Your task to perform on an android device: Go to sound settings Image 0: 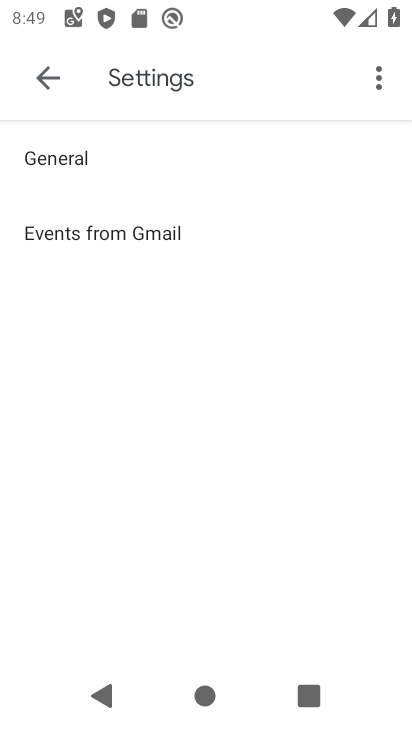
Step 0: press home button
Your task to perform on an android device: Go to sound settings Image 1: 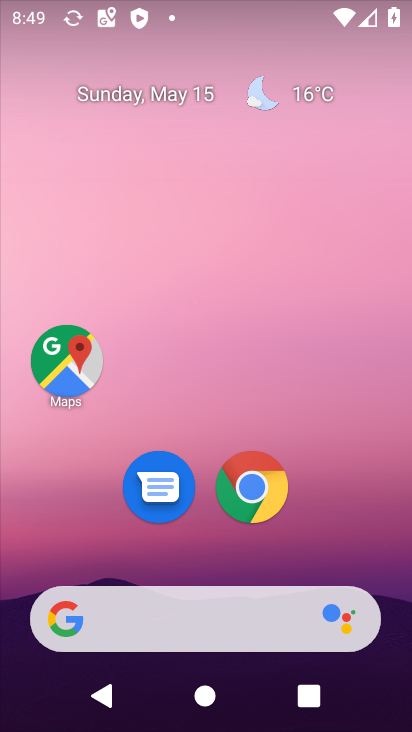
Step 1: drag from (400, 632) to (323, 59)
Your task to perform on an android device: Go to sound settings Image 2: 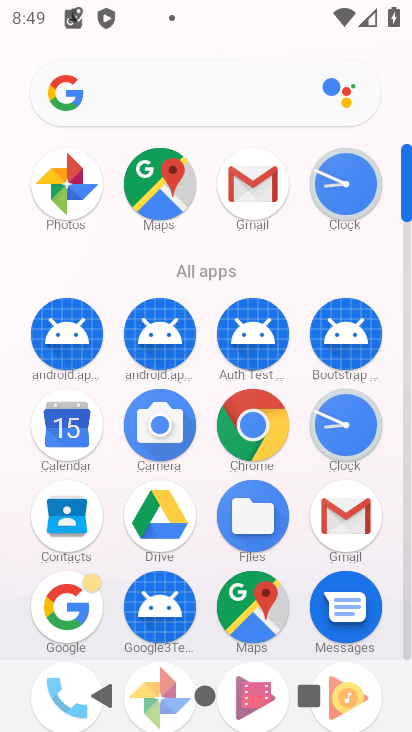
Step 2: click (408, 643)
Your task to perform on an android device: Go to sound settings Image 3: 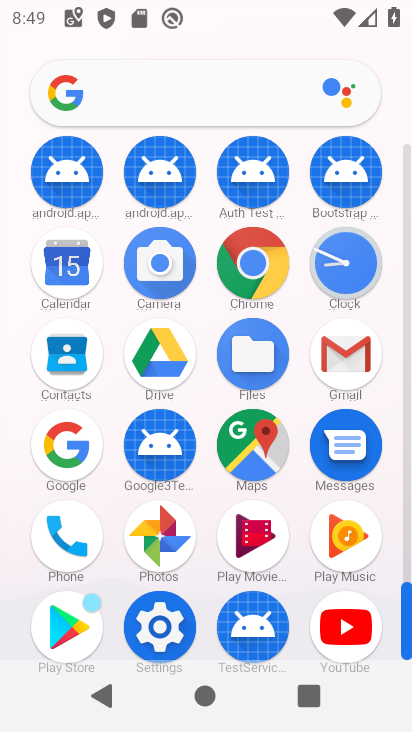
Step 3: click (161, 626)
Your task to perform on an android device: Go to sound settings Image 4: 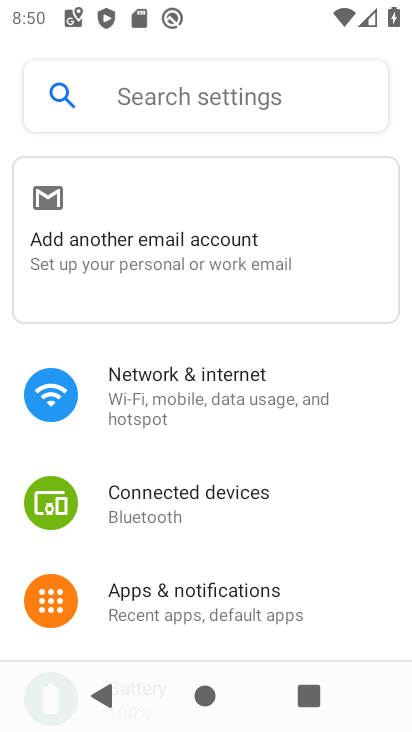
Step 4: drag from (343, 604) to (326, 120)
Your task to perform on an android device: Go to sound settings Image 5: 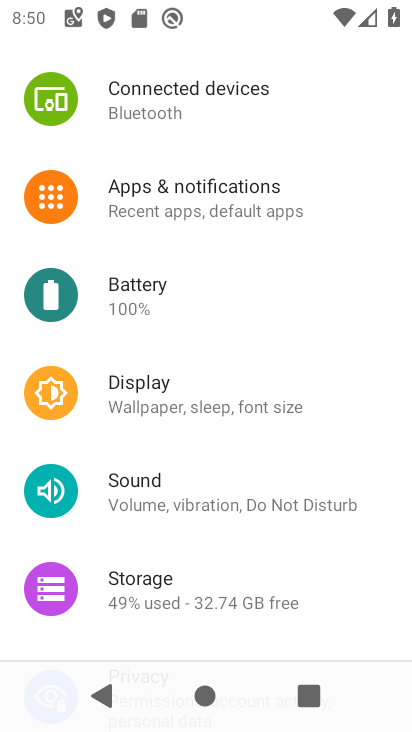
Step 5: click (140, 489)
Your task to perform on an android device: Go to sound settings Image 6: 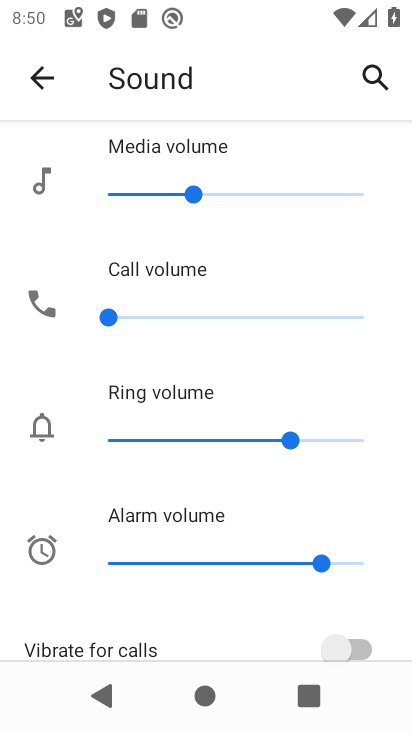
Step 6: drag from (376, 612) to (360, 265)
Your task to perform on an android device: Go to sound settings Image 7: 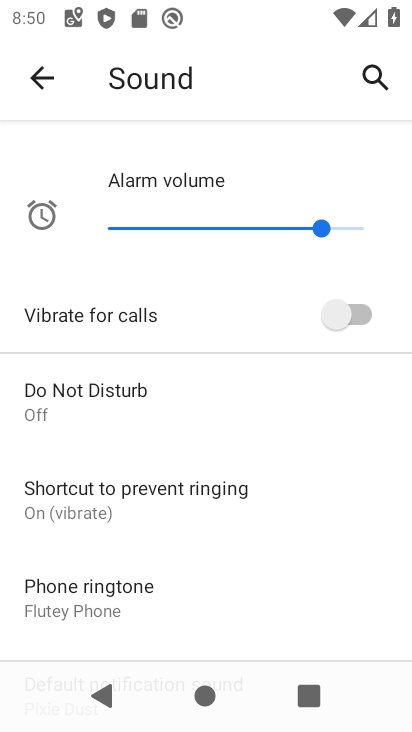
Step 7: drag from (324, 599) to (384, 211)
Your task to perform on an android device: Go to sound settings Image 8: 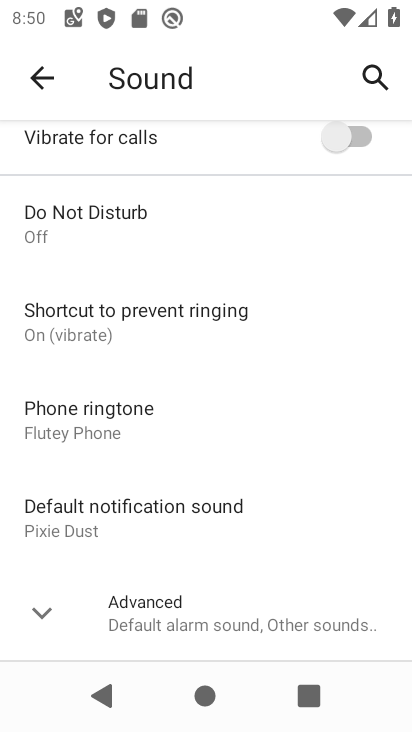
Step 8: click (38, 608)
Your task to perform on an android device: Go to sound settings Image 9: 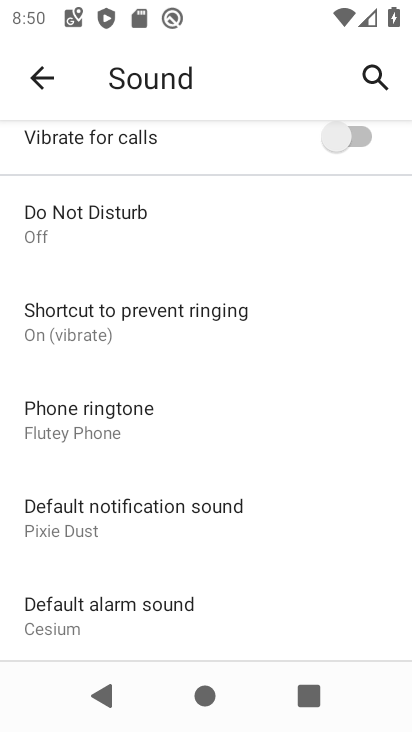
Step 9: task complete